Your task to perform on an android device: turn notification dots off Image 0: 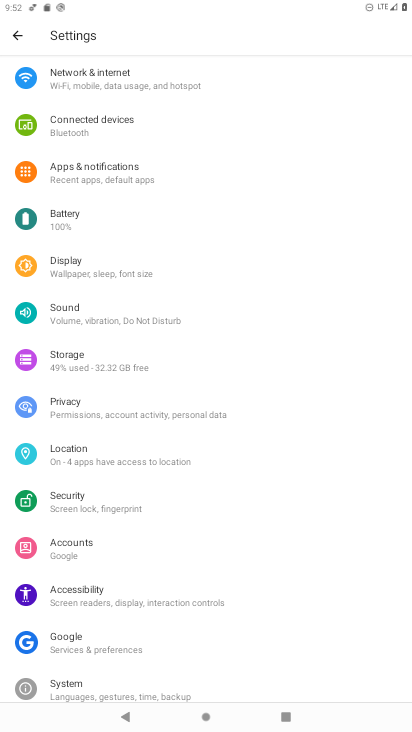
Step 0: press home button
Your task to perform on an android device: turn notification dots off Image 1: 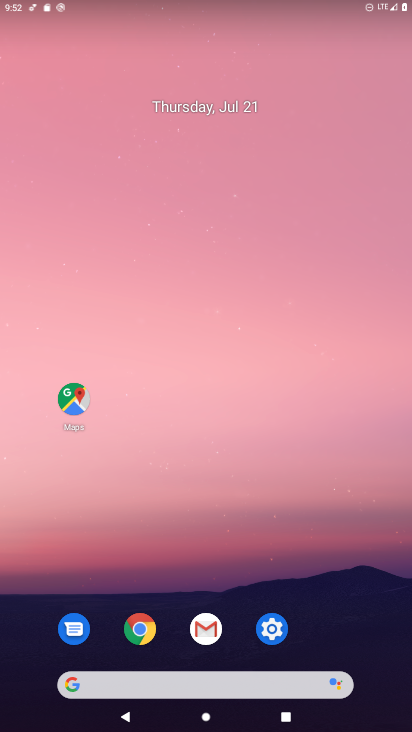
Step 1: click (261, 631)
Your task to perform on an android device: turn notification dots off Image 2: 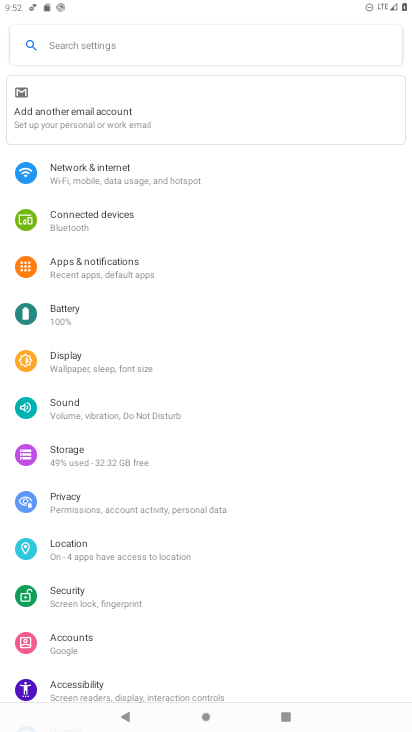
Step 2: click (123, 54)
Your task to perform on an android device: turn notification dots off Image 3: 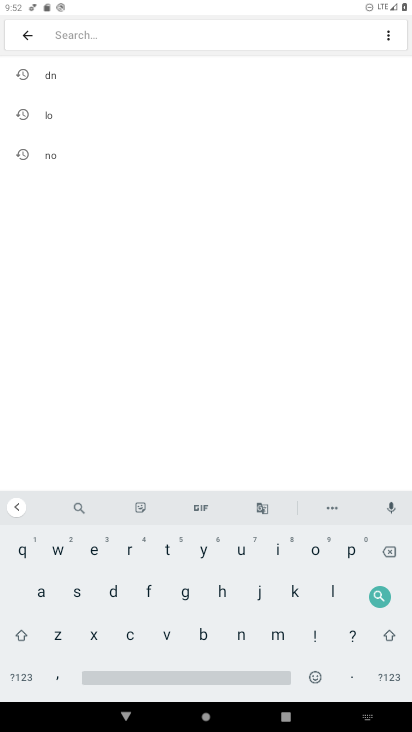
Step 3: click (75, 150)
Your task to perform on an android device: turn notification dots off Image 4: 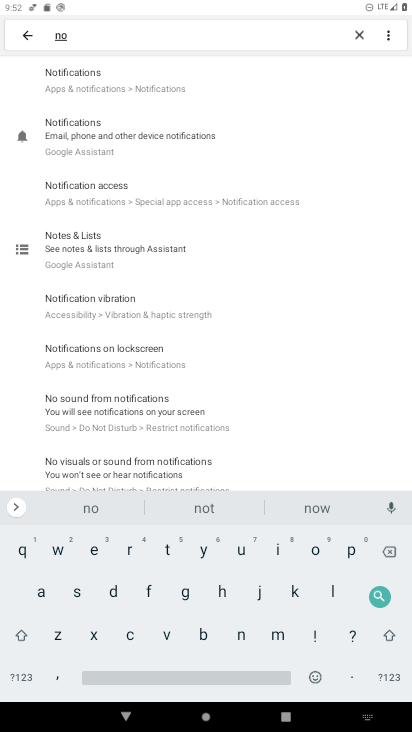
Step 4: click (112, 86)
Your task to perform on an android device: turn notification dots off Image 5: 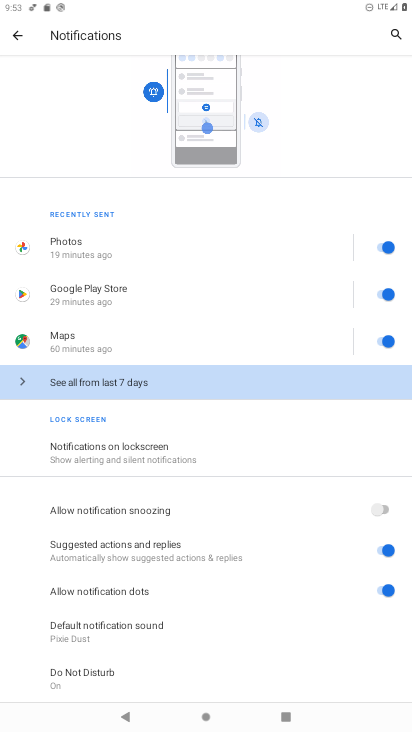
Step 5: click (231, 586)
Your task to perform on an android device: turn notification dots off Image 6: 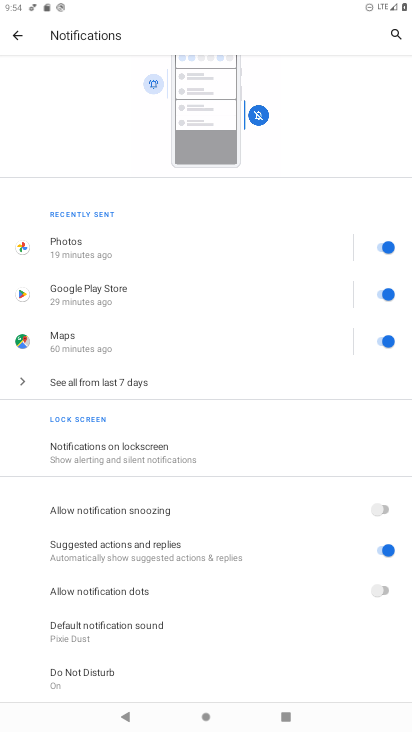
Step 6: task complete